Your task to perform on an android device: Open Google Chrome Image 0: 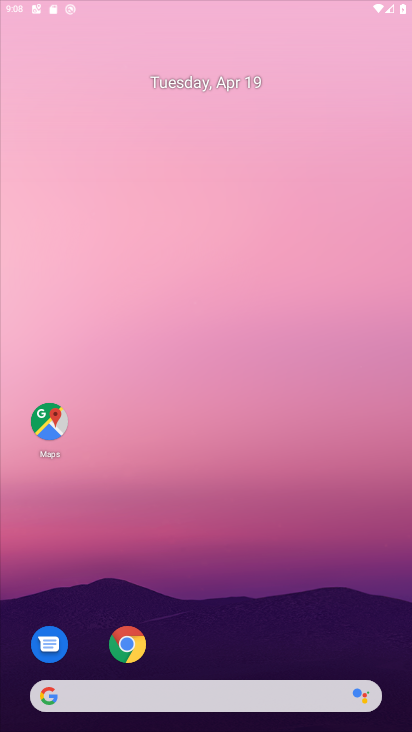
Step 0: click (290, 64)
Your task to perform on an android device: Open Google Chrome Image 1: 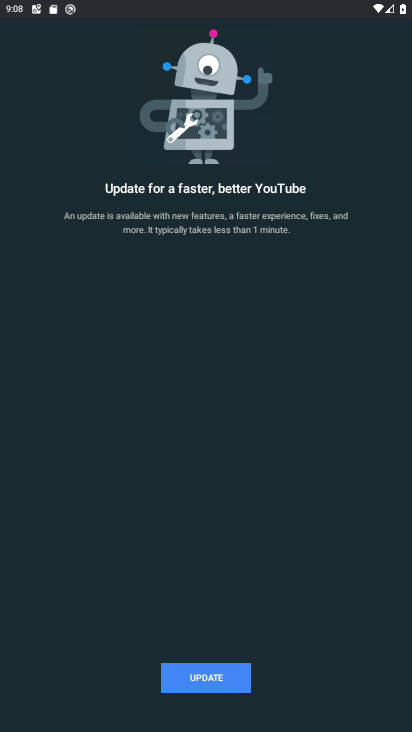
Step 1: press back button
Your task to perform on an android device: Open Google Chrome Image 2: 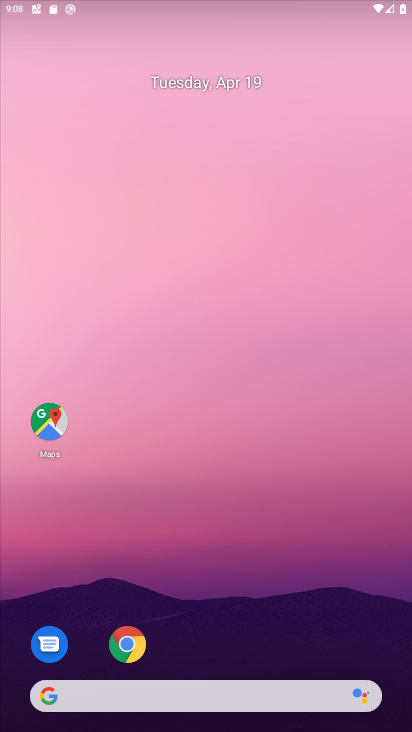
Step 2: drag from (318, 639) to (317, 11)
Your task to perform on an android device: Open Google Chrome Image 3: 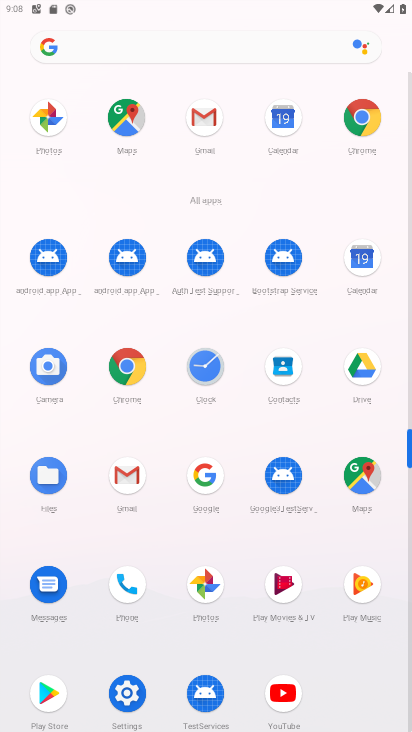
Step 3: click (350, 130)
Your task to perform on an android device: Open Google Chrome Image 4: 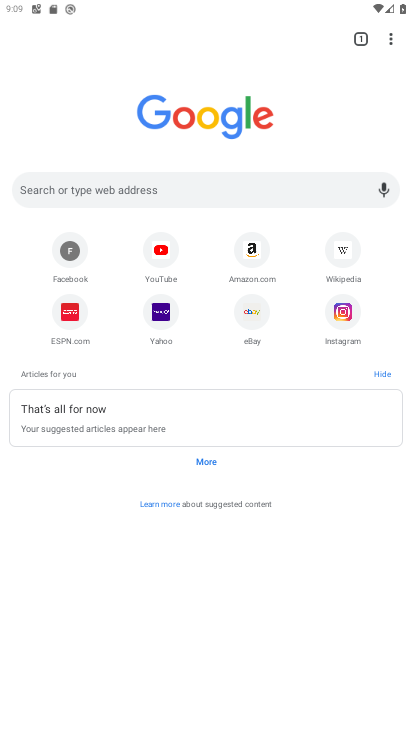
Step 4: task complete